Your task to perform on an android device: Open calendar and show me the fourth week of next month Image 0: 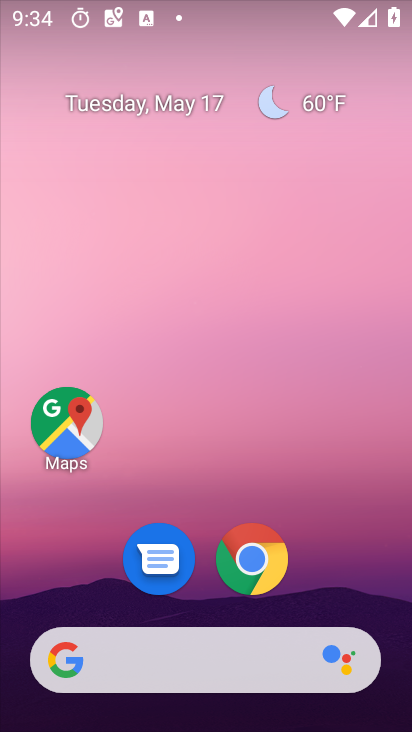
Step 0: drag from (178, 682) to (274, 160)
Your task to perform on an android device: Open calendar and show me the fourth week of next month Image 1: 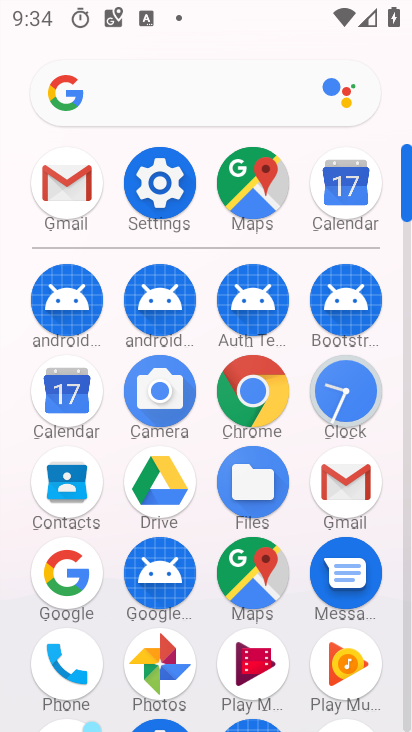
Step 1: click (75, 416)
Your task to perform on an android device: Open calendar and show me the fourth week of next month Image 2: 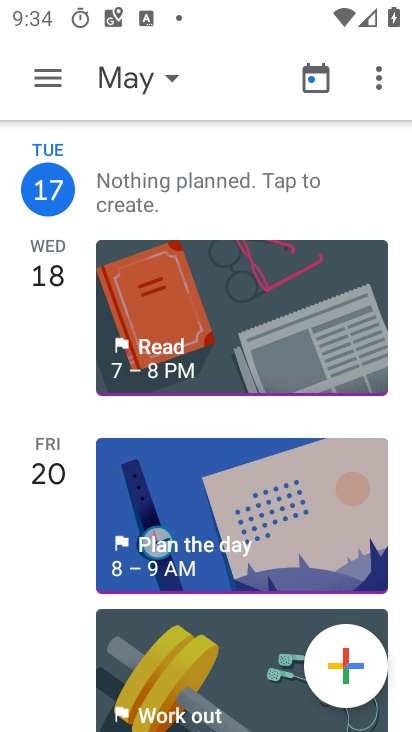
Step 2: click (168, 88)
Your task to perform on an android device: Open calendar and show me the fourth week of next month Image 3: 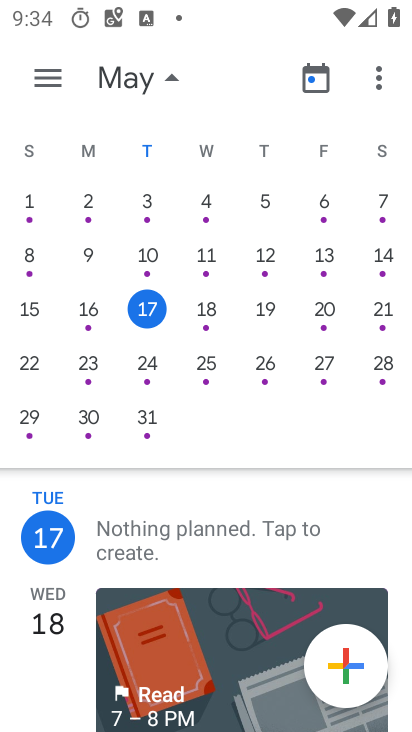
Step 3: drag from (349, 324) to (0, 375)
Your task to perform on an android device: Open calendar and show me the fourth week of next month Image 4: 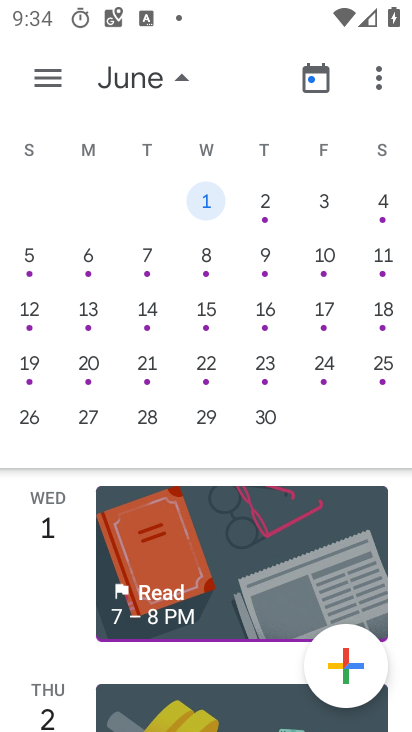
Step 4: drag from (96, 376) to (6, 375)
Your task to perform on an android device: Open calendar and show me the fourth week of next month Image 5: 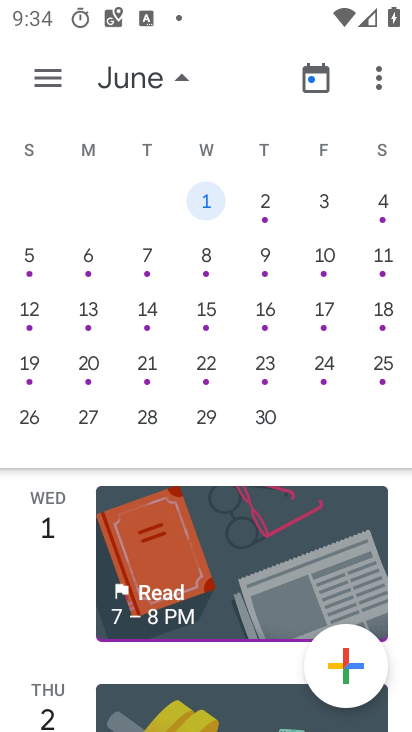
Step 5: click (36, 366)
Your task to perform on an android device: Open calendar and show me the fourth week of next month Image 6: 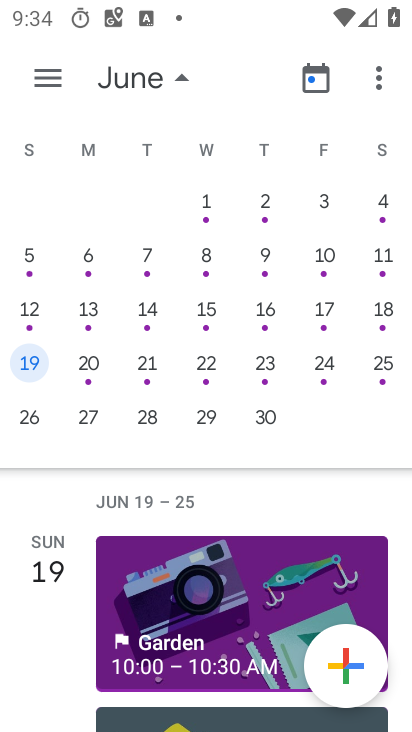
Step 6: task complete